Your task to perform on an android device: turn off smart reply in the gmail app Image 0: 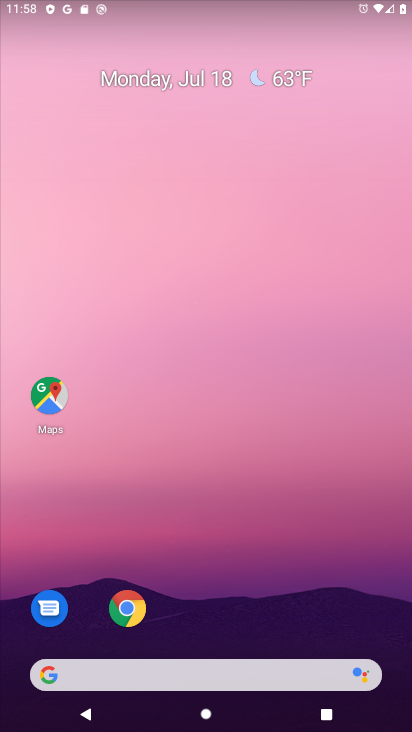
Step 0: drag from (283, 587) to (273, 123)
Your task to perform on an android device: turn off smart reply in the gmail app Image 1: 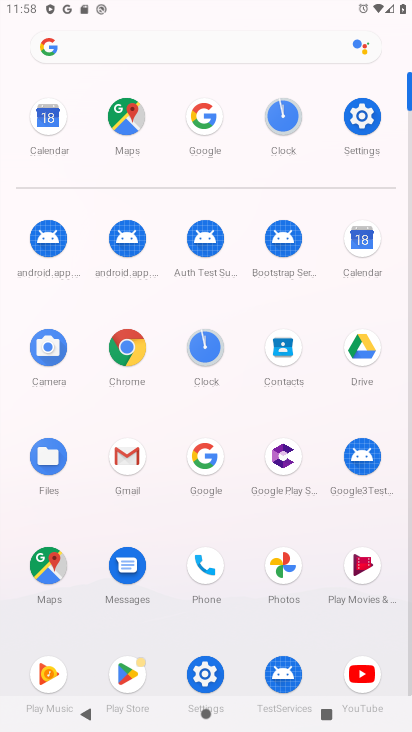
Step 1: click (135, 458)
Your task to perform on an android device: turn off smart reply in the gmail app Image 2: 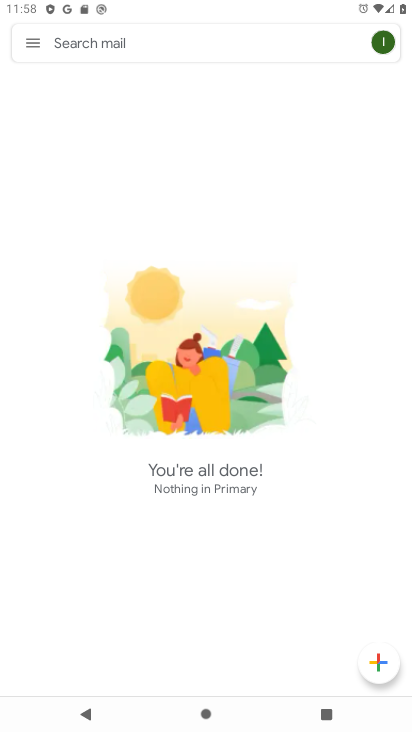
Step 2: click (22, 45)
Your task to perform on an android device: turn off smart reply in the gmail app Image 3: 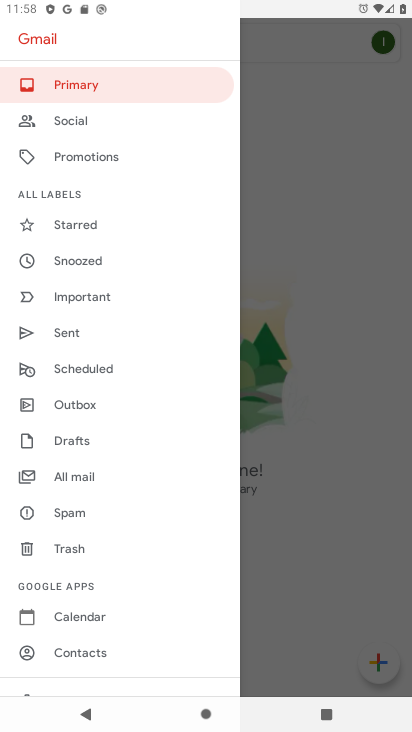
Step 3: click (78, 689)
Your task to perform on an android device: turn off smart reply in the gmail app Image 4: 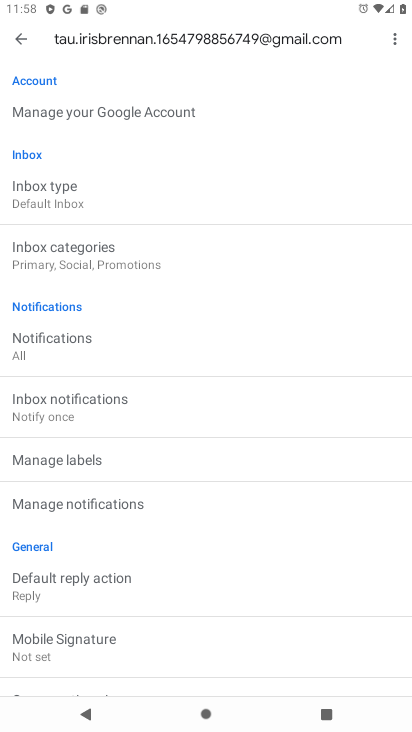
Step 4: drag from (137, 615) to (115, 236)
Your task to perform on an android device: turn off smart reply in the gmail app Image 5: 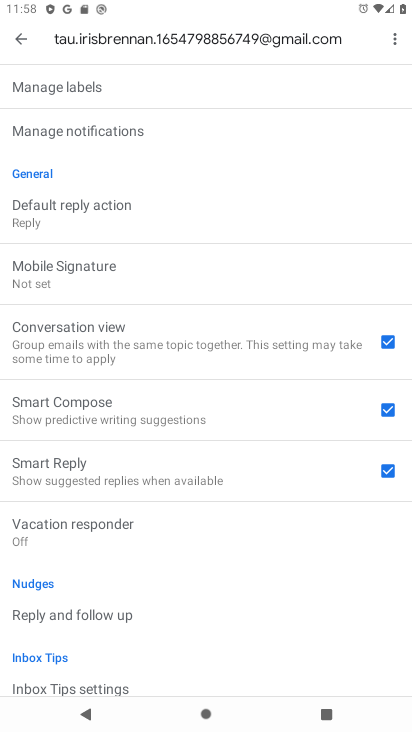
Step 5: click (381, 457)
Your task to perform on an android device: turn off smart reply in the gmail app Image 6: 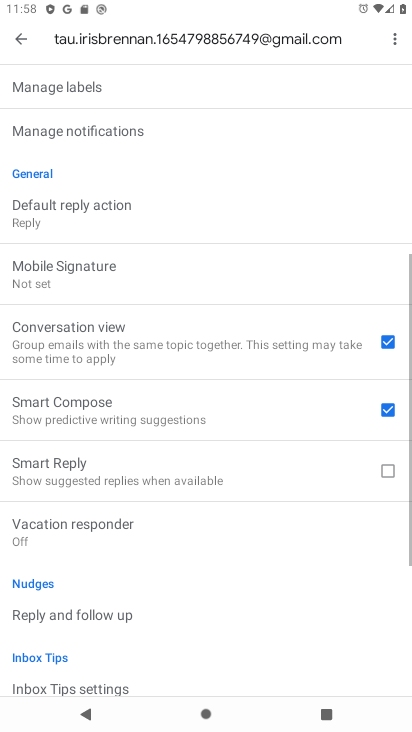
Step 6: task complete